Your task to perform on an android device: Open ESPN.com Image 0: 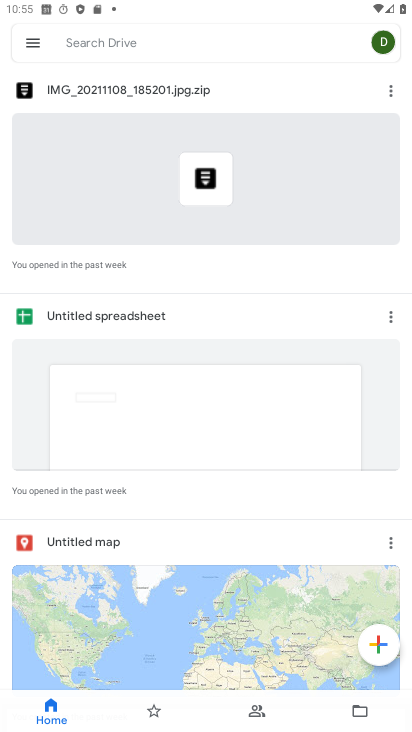
Step 0: drag from (231, 618) to (262, 242)
Your task to perform on an android device: Open ESPN.com Image 1: 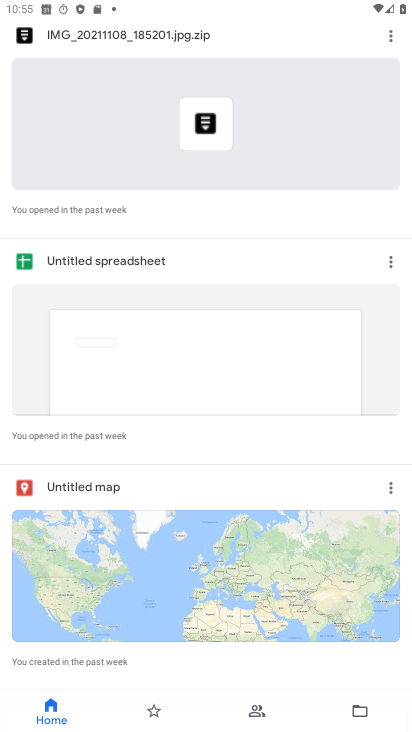
Step 1: press home button
Your task to perform on an android device: Open ESPN.com Image 2: 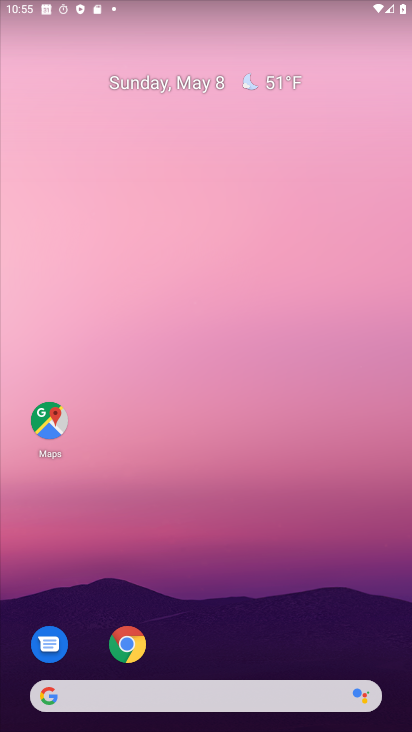
Step 2: drag from (337, 596) to (407, 140)
Your task to perform on an android device: Open ESPN.com Image 3: 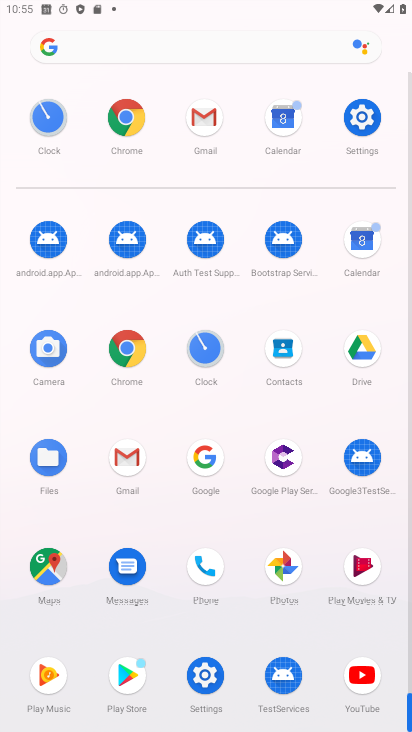
Step 3: click (178, 52)
Your task to perform on an android device: Open ESPN.com Image 4: 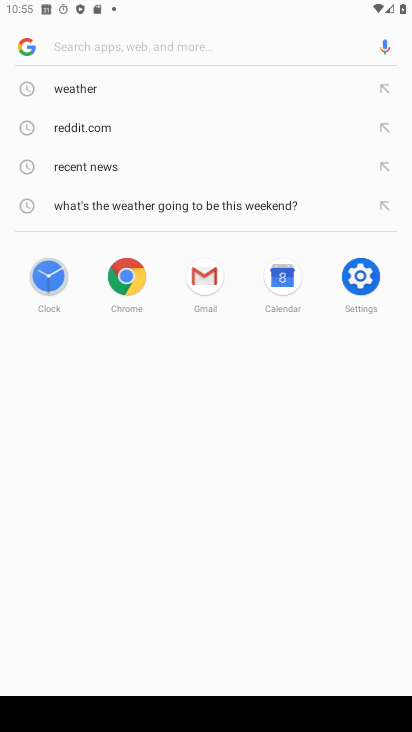
Step 4: click (131, 50)
Your task to perform on an android device: Open ESPN.com Image 5: 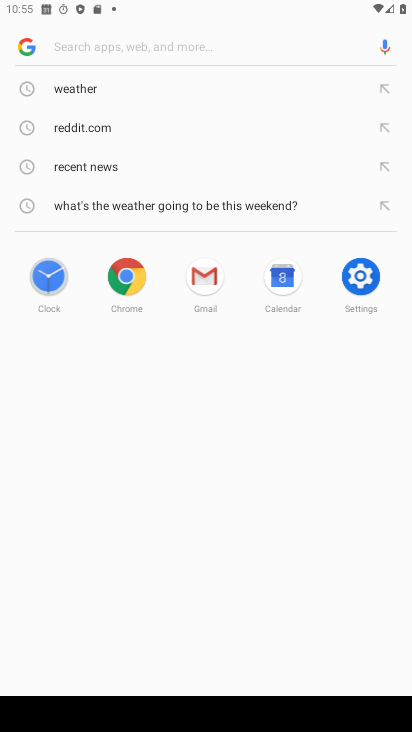
Step 5: type "espn"
Your task to perform on an android device: Open ESPN.com Image 6: 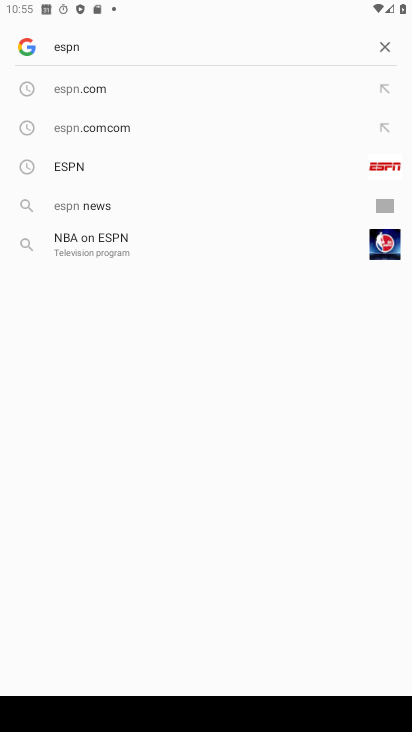
Step 6: click (101, 90)
Your task to perform on an android device: Open ESPN.com Image 7: 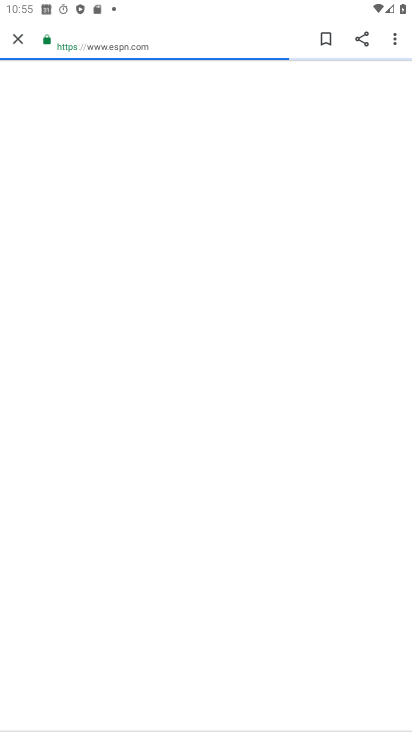
Step 7: task complete